Your task to perform on an android device: Search for sushi restaurants on Maps Image 0: 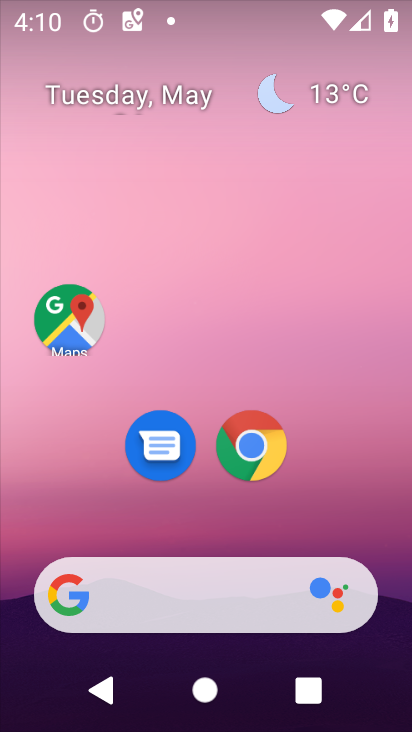
Step 0: click (71, 314)
Your task to perform on an android device: Search for sushi restaurants on Maps Image 1: 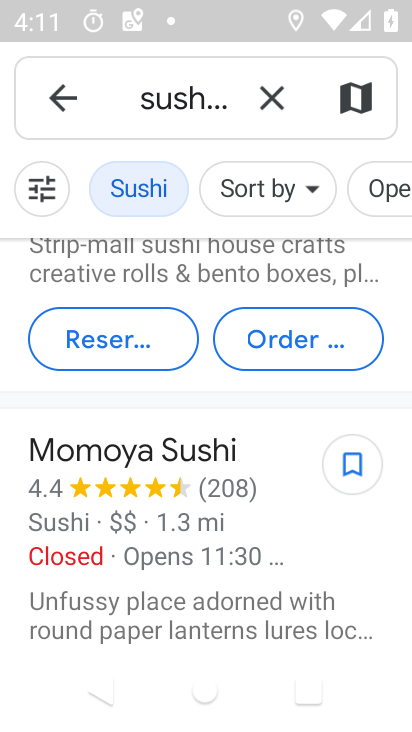
Step 1: task complete